Your task to perform on an android device: set the stopwatch Image 0: 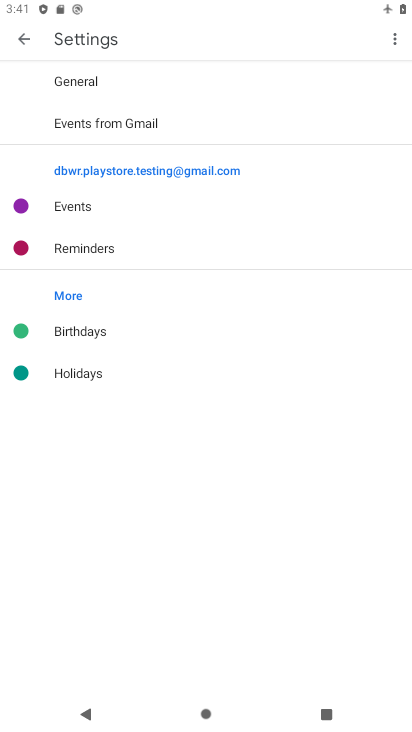
Step 0: press home button
Your task to perform on an android device: set the stopwatch Image 1: 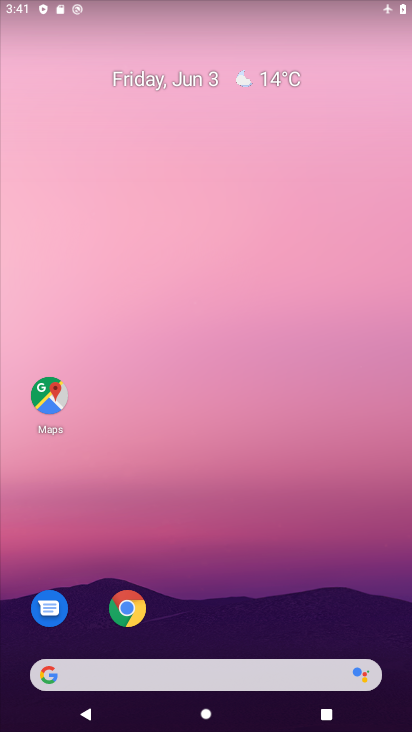
Step 1: drag from (176, 662) to (200, 219)
Your task to perform on an android device: set the stopwatch Image 2: 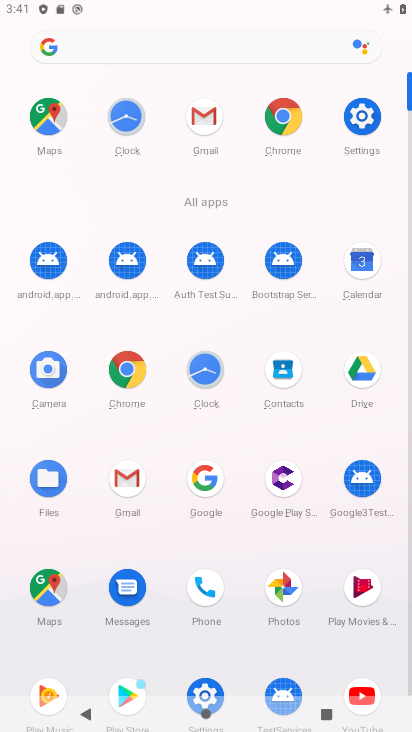
Step 2: click (192, 380)
Your task to perform on an android device: set the stopwatch Image 3: 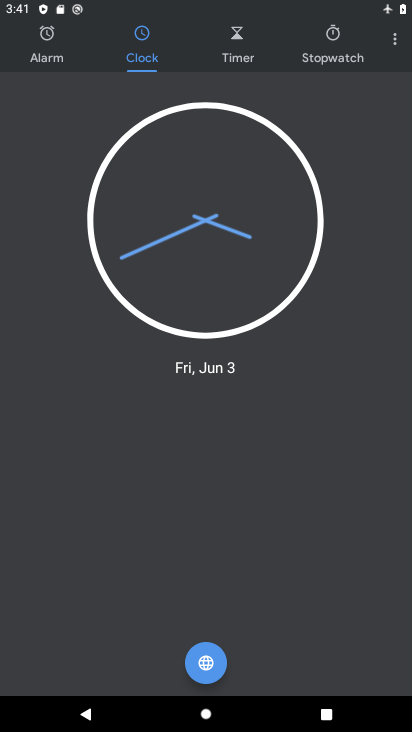
Step 3: click (322, 46)
Your task to perform on an android device: set the stopwatch Image 4: 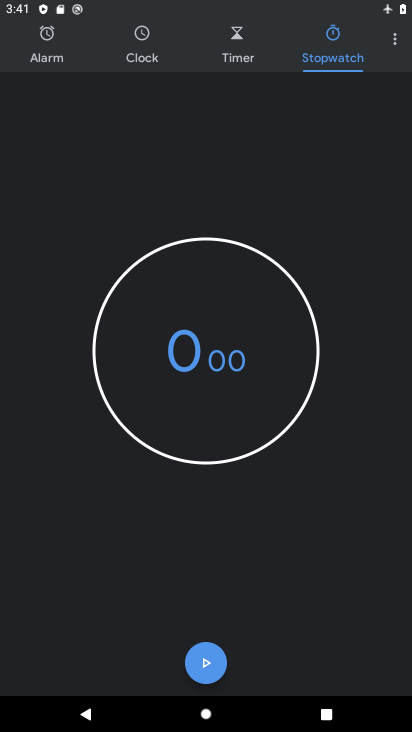
Step 4: drag from (195, 599) to (177, 314)
Your task to perform on an android device: set the stopwatch Image 5: 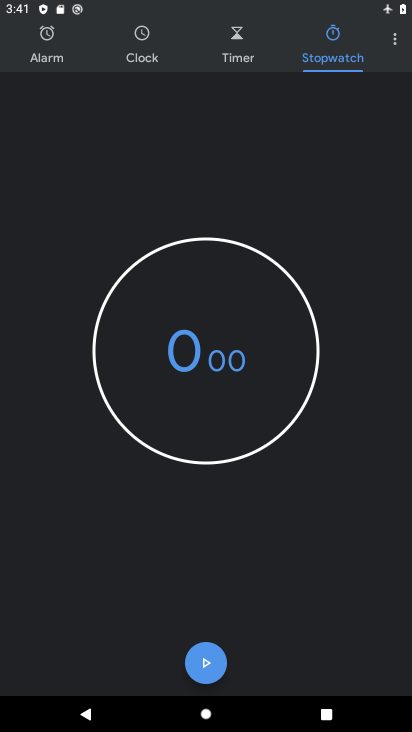
Step 5: click (203, 657)
Your task to perform on an android device: set the stopwatch Image 6: 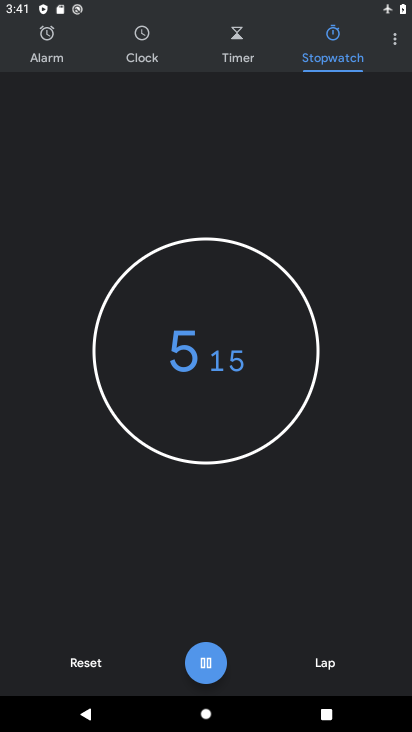
Step 6: click (204, 664)
Your task to perform on an android device: set the stopwatch Image 7: 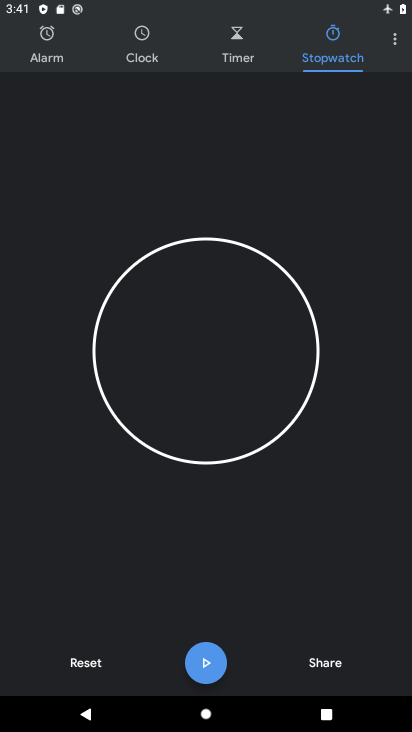
Step 7: task complete